Your task to perform on an android device: Go to Reddit.com Image 0: 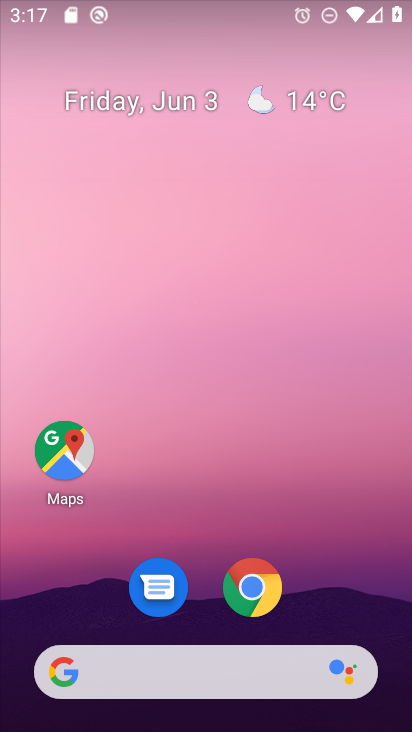
Step 0: click (249, 600)
Your task to perform on an android device: Go to Reddit.com Image 1: 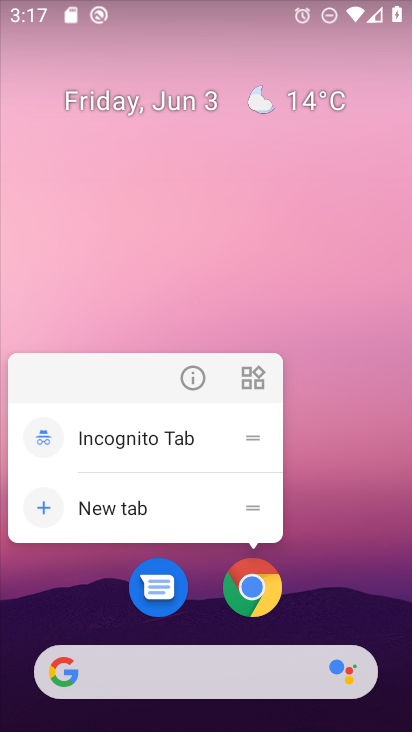
Step 1: click (246, 593)
Your task to perform on an android device: Go to Reddit.com Image 2: 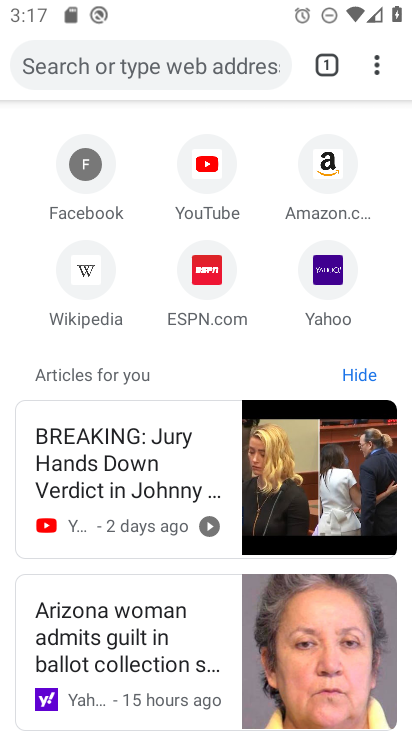
Step 2: click (378, 72)
Your task to perform on an android device: Go to Reddit.com Image 3: 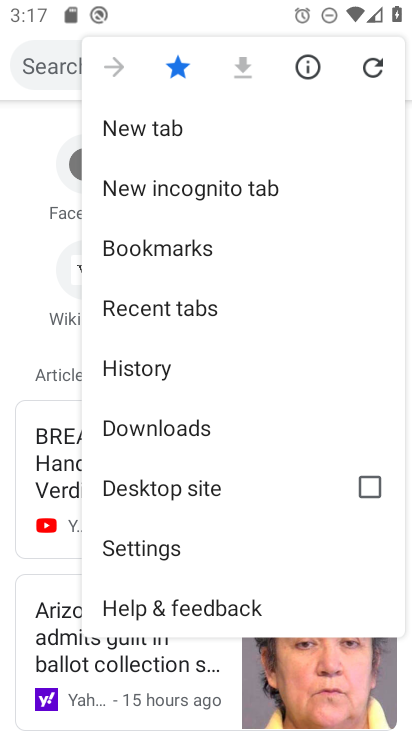
Step 3: click (171, 127)
Your task to perform on an android device: Go to Reddit.com Image 4: 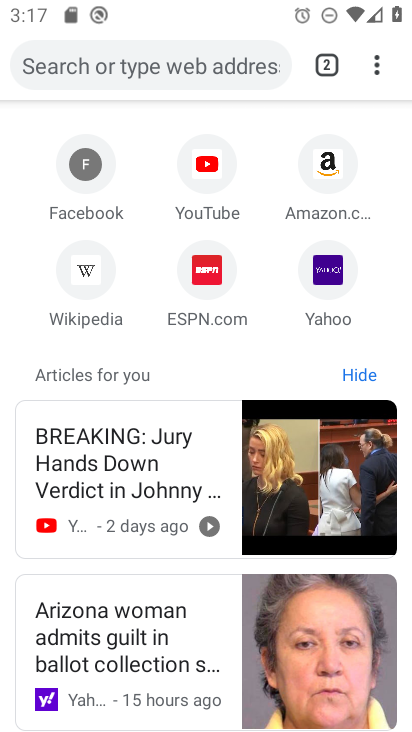
Step 4: click (185, 67)
Your task to perform on an android device: Go to Reddit.com Image 5: 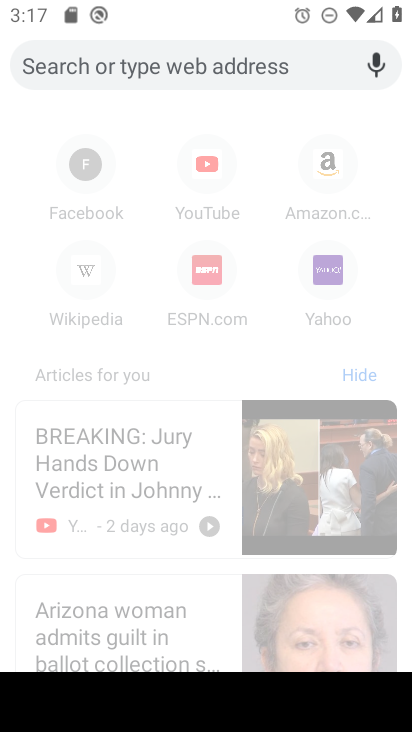
Step 5: type "Reddit.com"
Your task to perform on an android device: Go to Reddit.com Image 6: 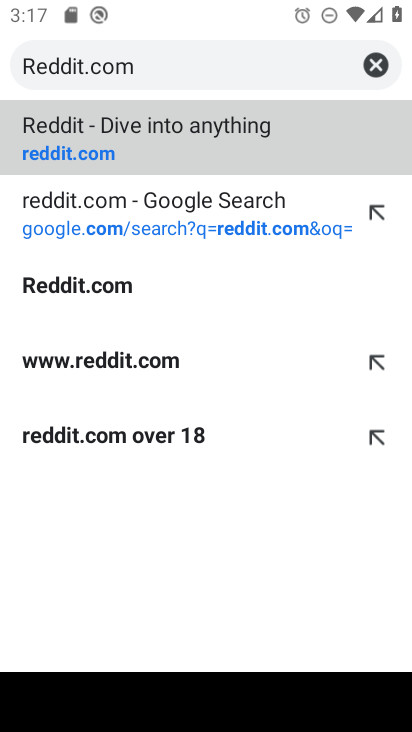
Step 6: click (61, 129)
Your task to perform on an android device: Go to Reddit.com Image 7: 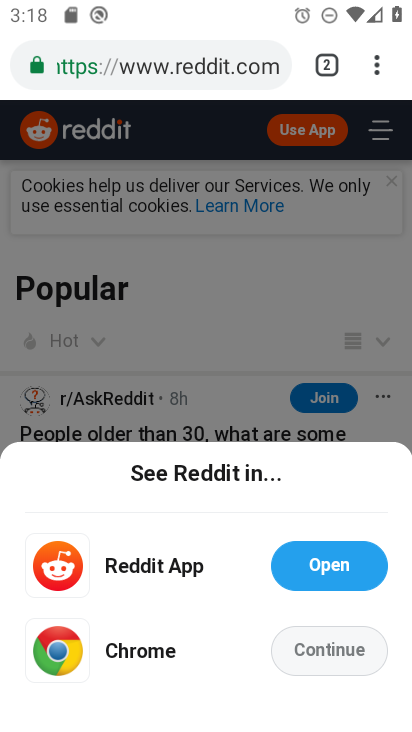
Step 7: task complete